Your task to perform on an android device: uninstall "ZOOM Cloud Meetings" Image 0: 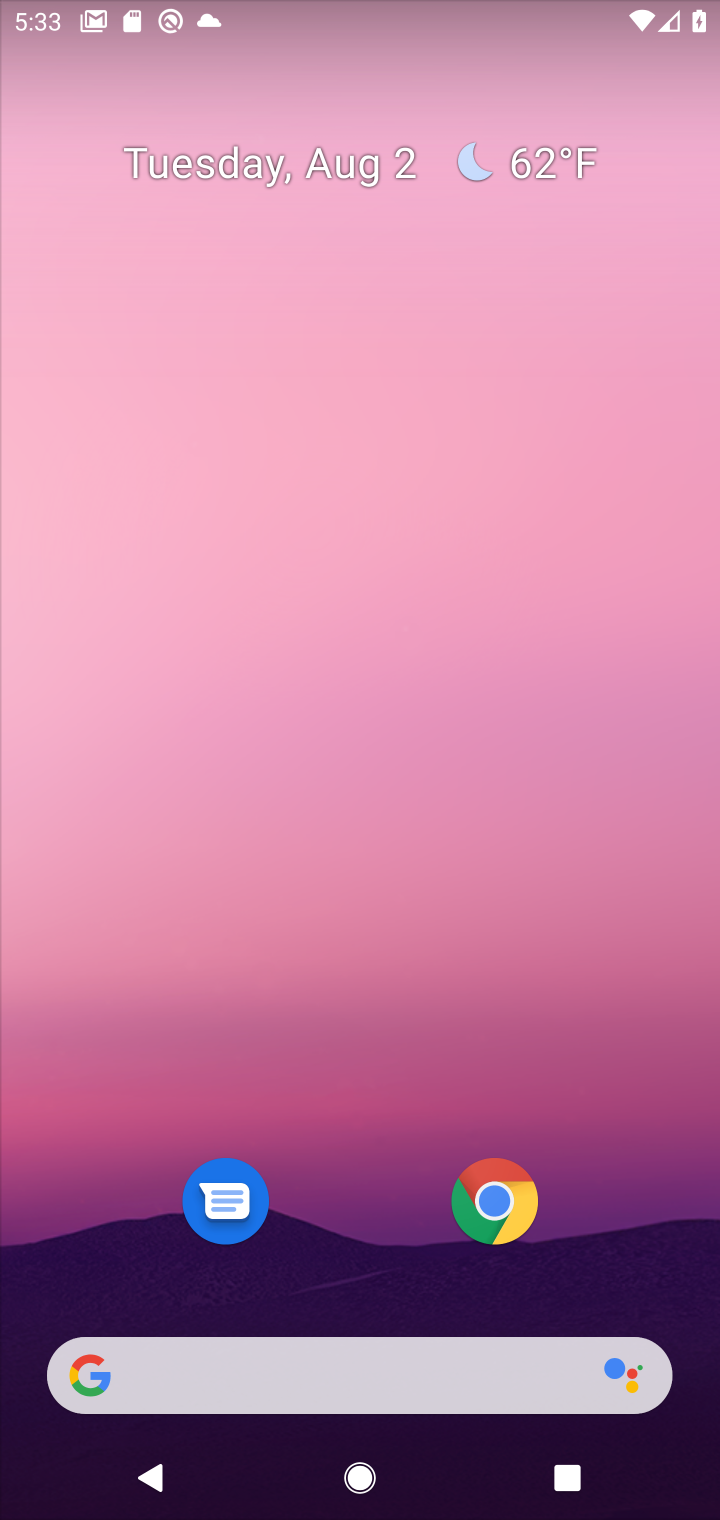
Step 0: drag from (335, 1218) to (320, 54)
Your task to perform on an android device: uninstall "ZOOM Cloud Meetings" Image 1: 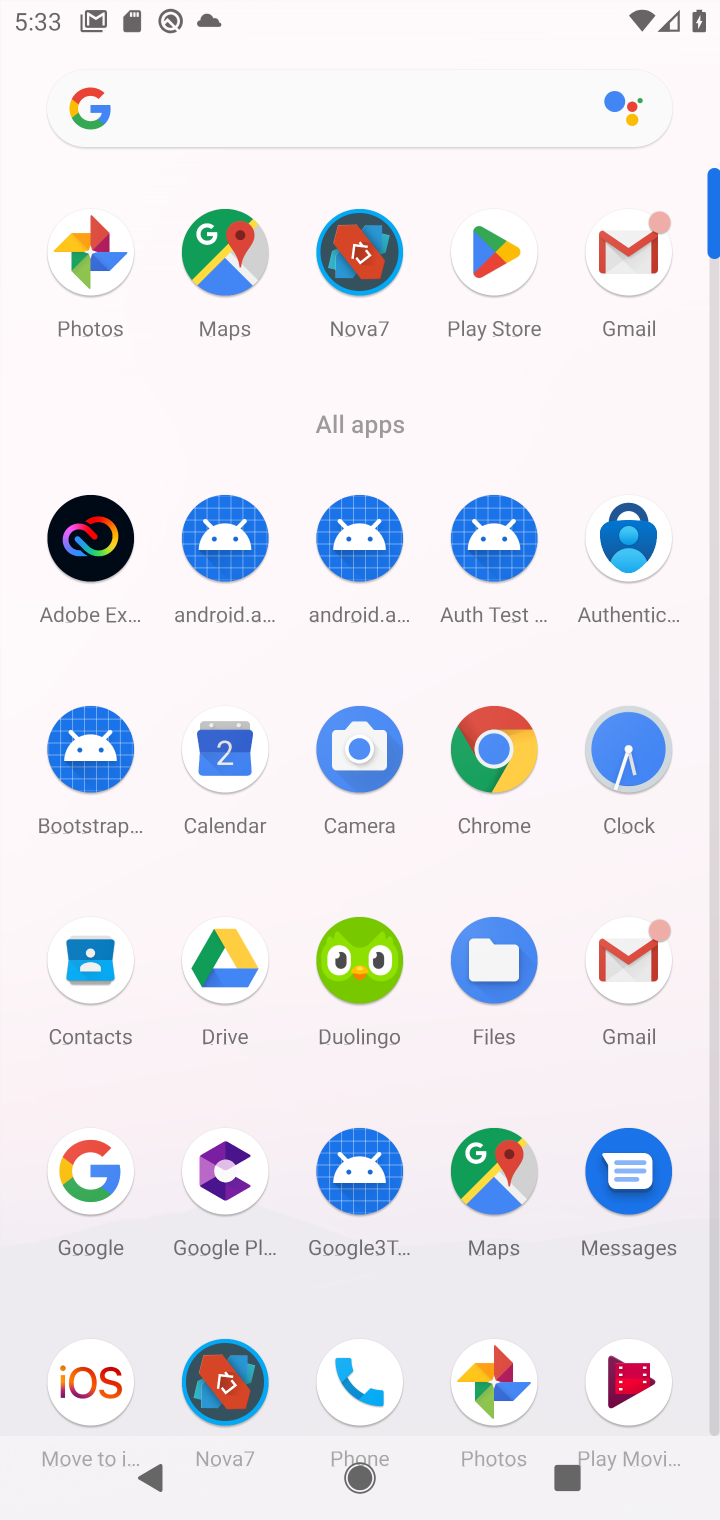
Step 1: click (504, 273)
Your task to perform on an android device: uninstall "ZOOM Cloud Meetings" Image 2: 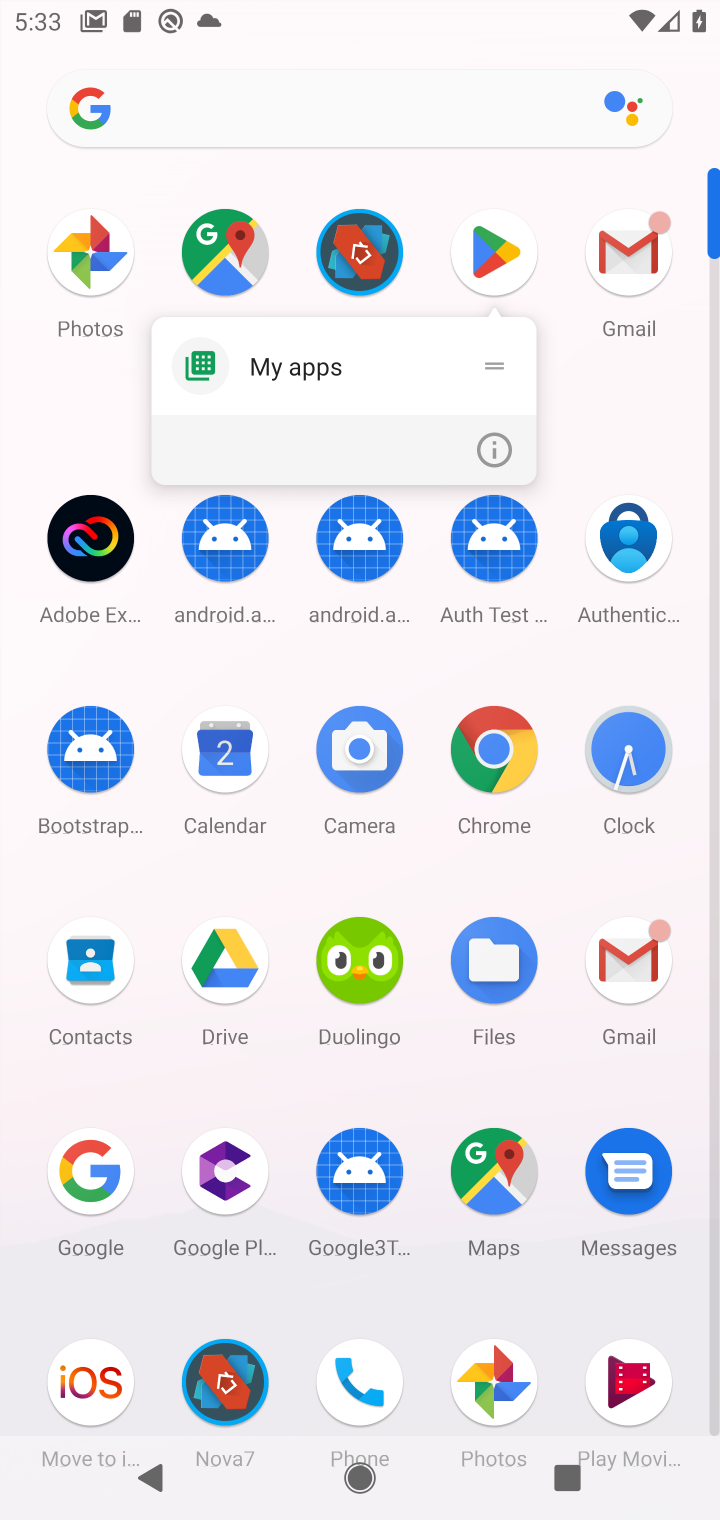
Step 2: click (481, 430)
Your task to perform on an android device: uninstall "ZOOM Cloud Meetings" Image 3: 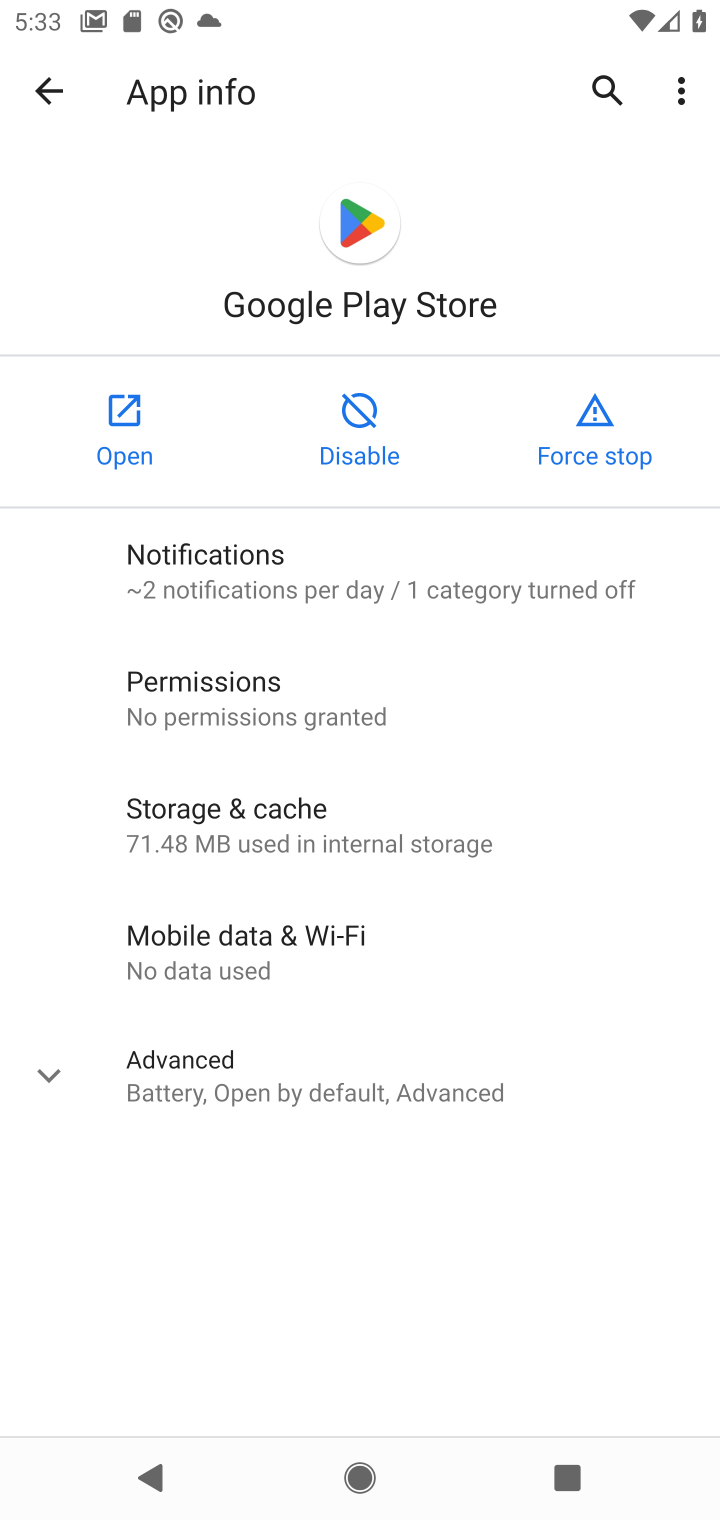
Step 3: click (94, 398)
Your task to perform on an android device: uninstall "ZOOM Cloud Meetings" Image 4: 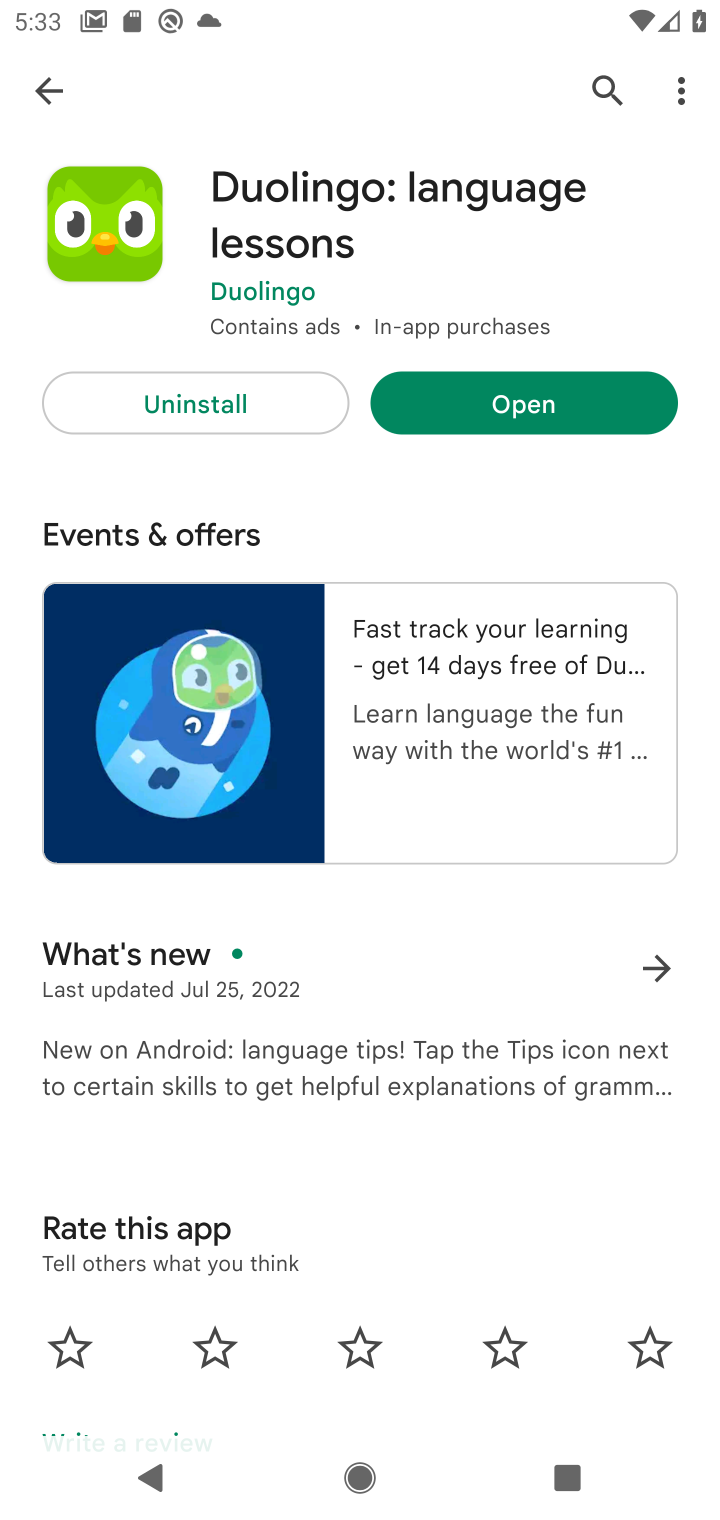
Step 4: click (227, 399)
Your task to perform on an android device: uninstall "ZOOM Cloud Meetings" Image 5: 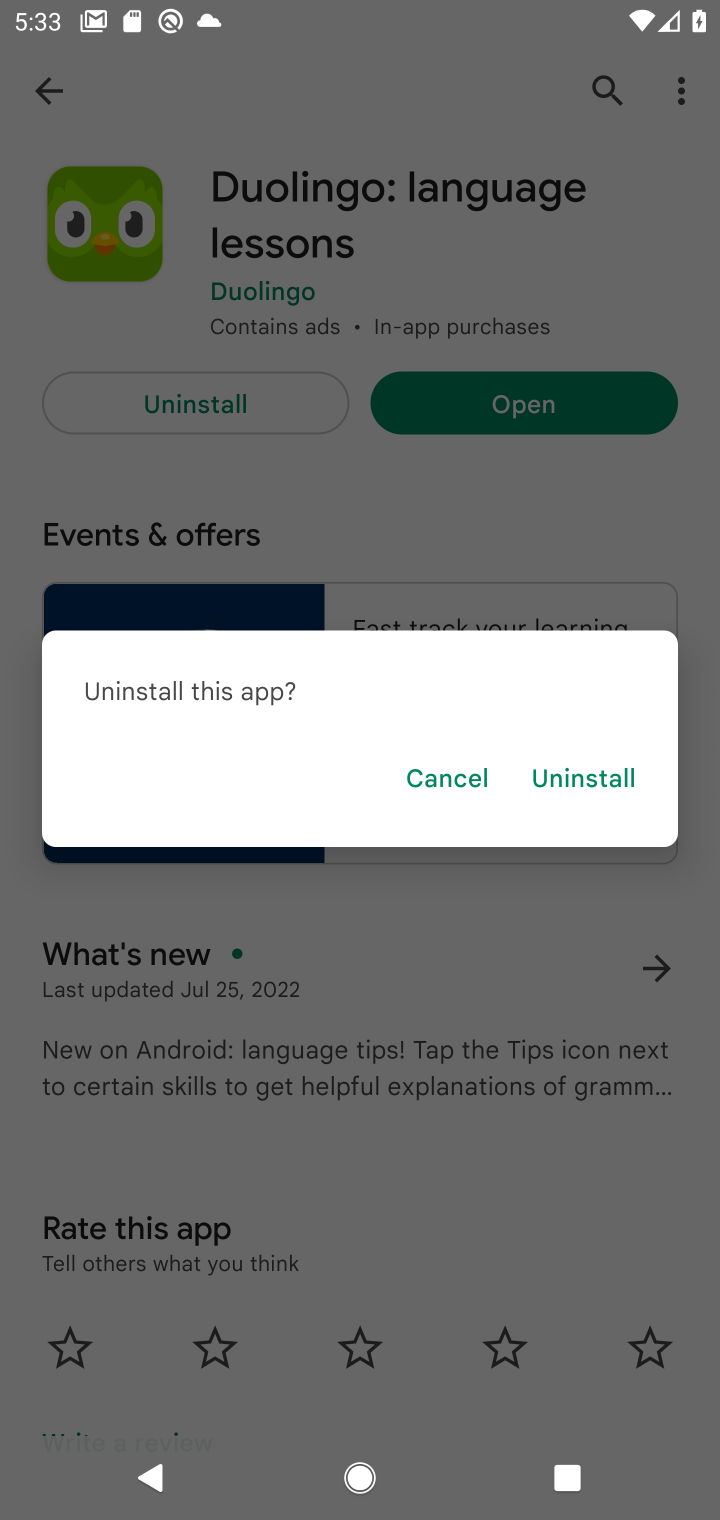
Step 5: click (432, 776)
Your task to perform on an android device: uninstall "ZOOM Cloud Meetings" Image 6: 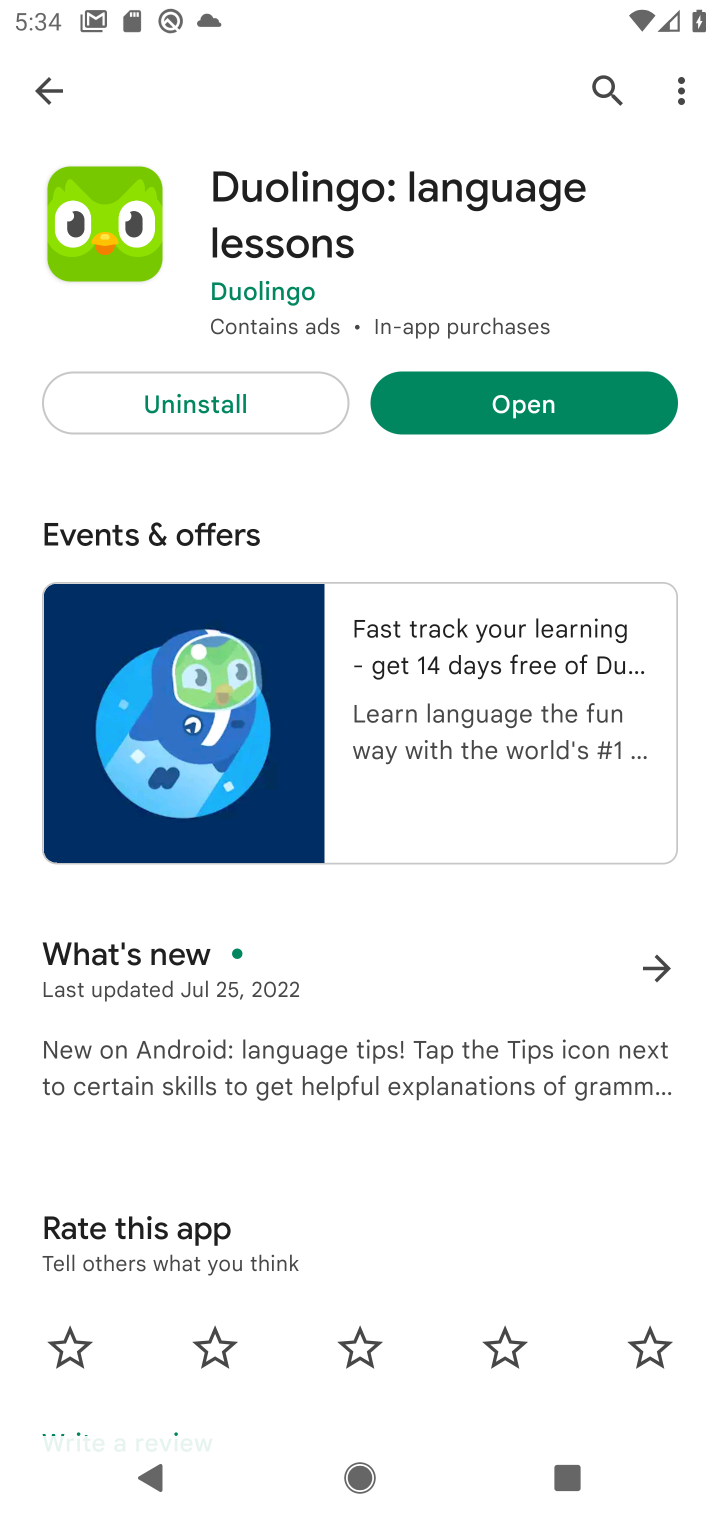
Step 6: click (593, 85)
Your task to perform on an android device: uninstall "ZOOM Cloud Meetings" Image 7: 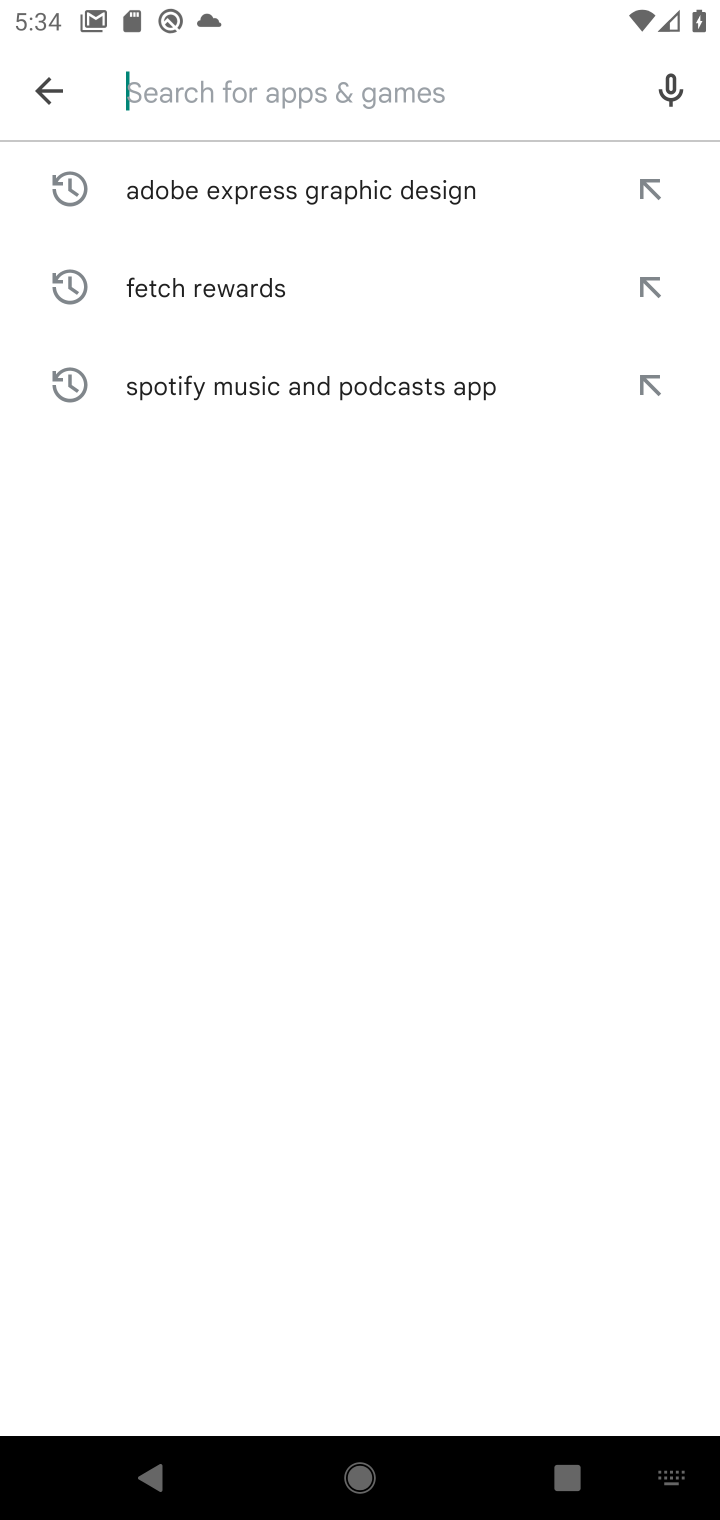
Step 7: click (199, 89)
Your task to perform on an android device: uninstall "ZOOM Cloud Meetings" Image 8: 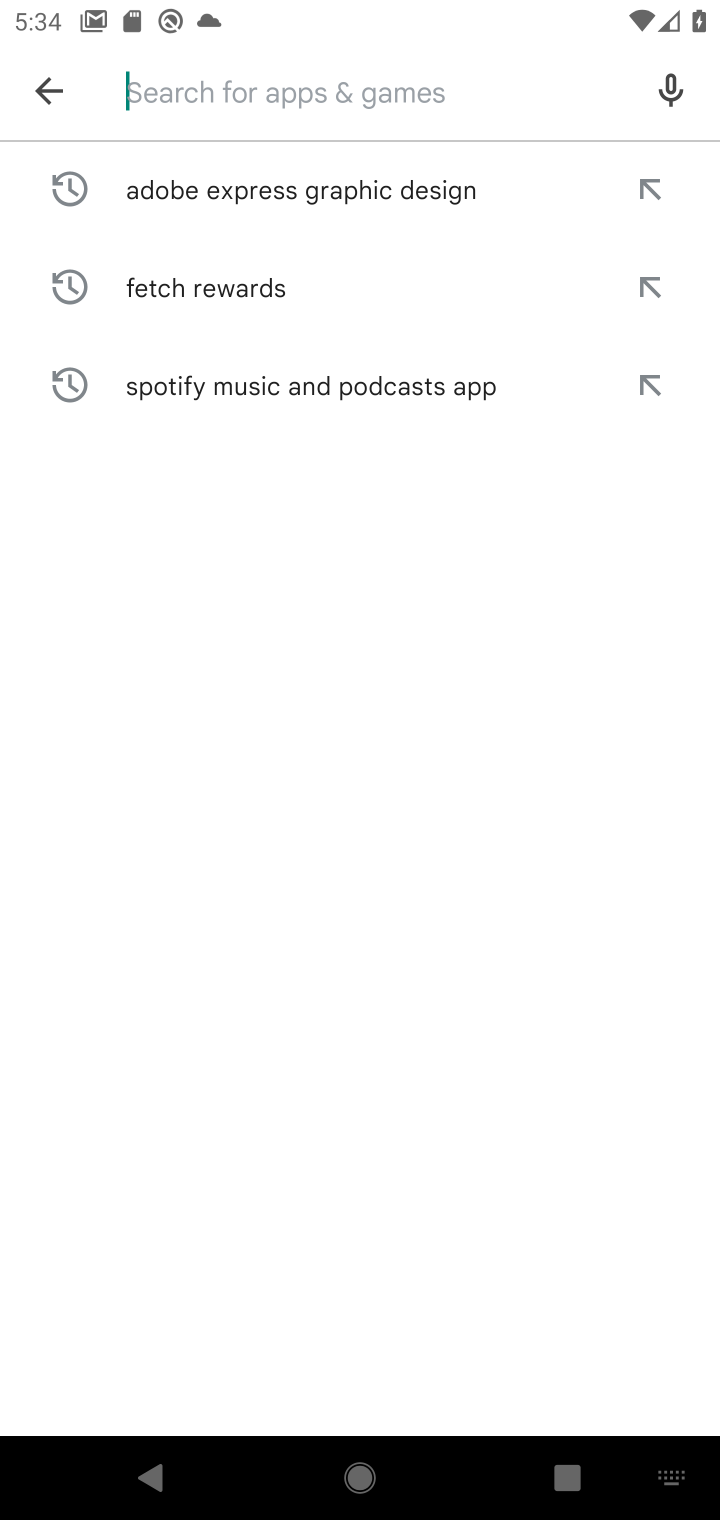
Step 8: type "ZOOM Cloud Meetings"
Your task to perform on an android device: uninstall "ZOOM Cloud Meetings" Image 9: 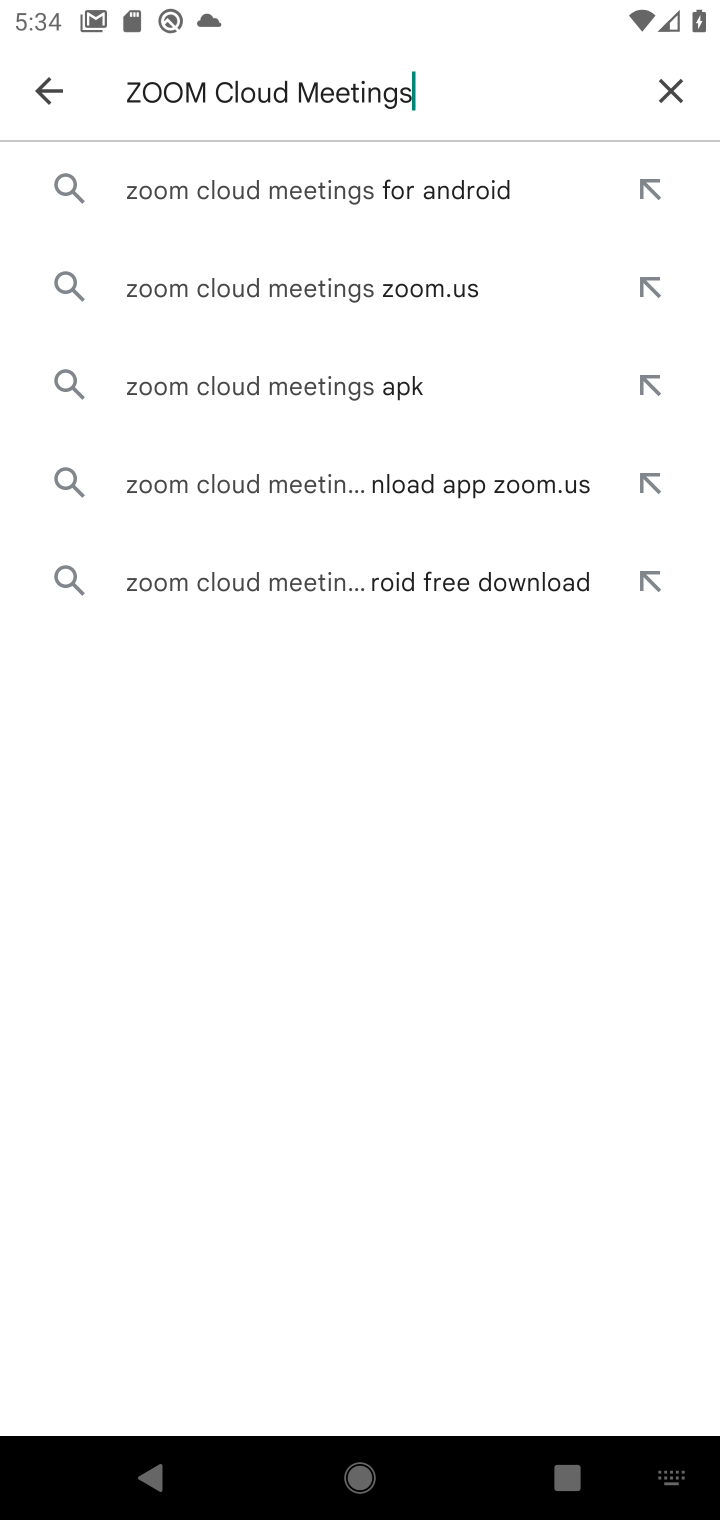
Step 9: type ""
Your task to perform on an android device: uninstall "ZOOM Cloud Meetings" Image 10: 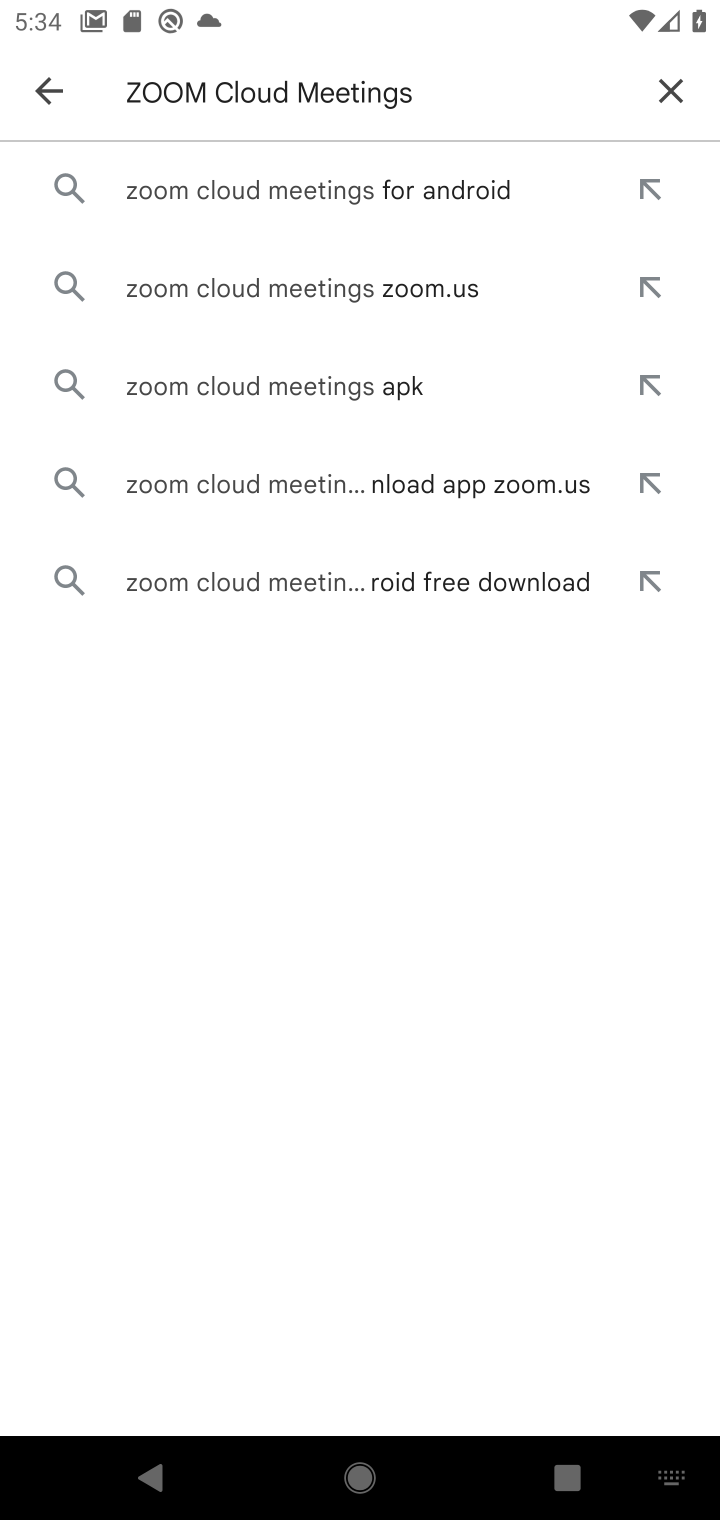
Step 10: click (220, 189)
Your task to perform on an android device: uninstall "ZOOM Cloud Meetings" Image 11: 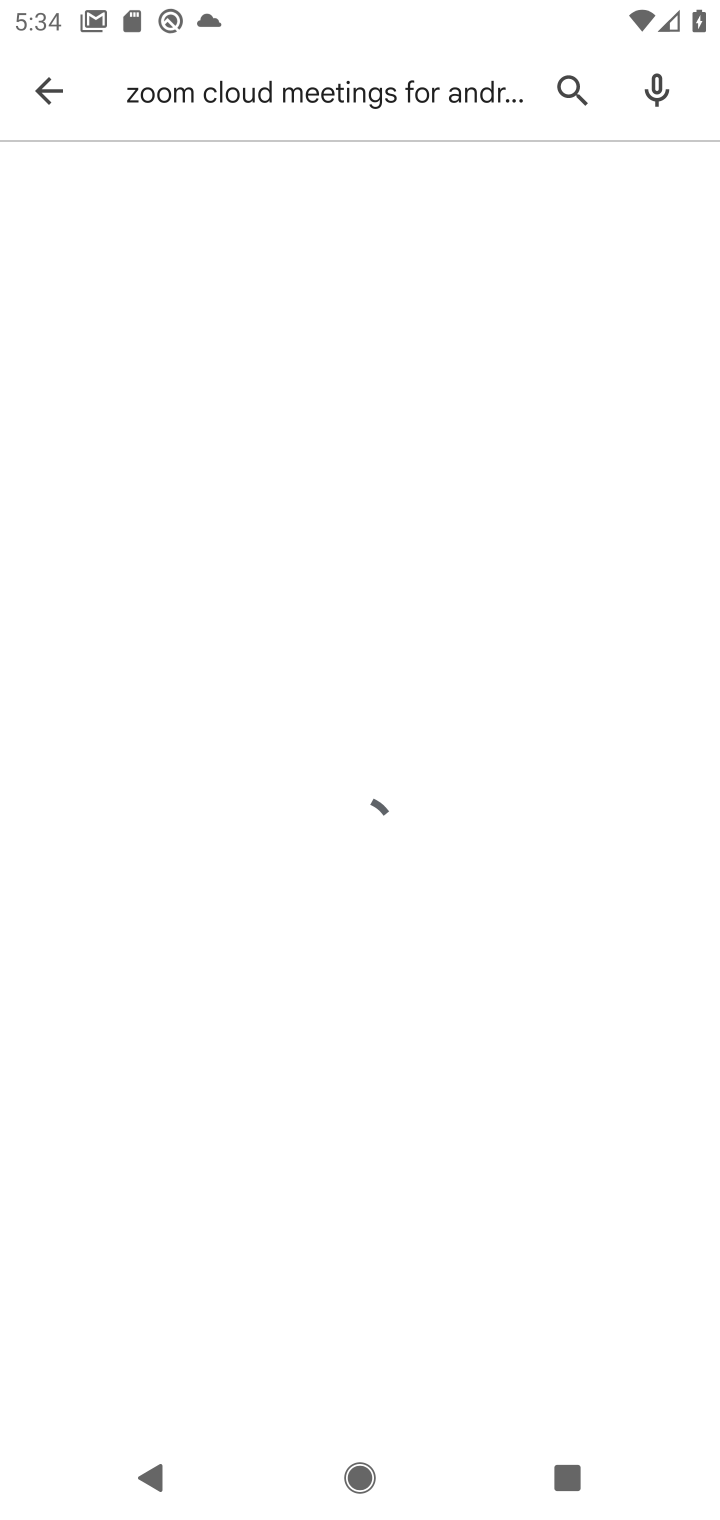
Step 11: drag from (311, 631) to (372, 1206)
Your task to perform on an android device: uninstall "ZOOM Cloud Meetings" Image 12: 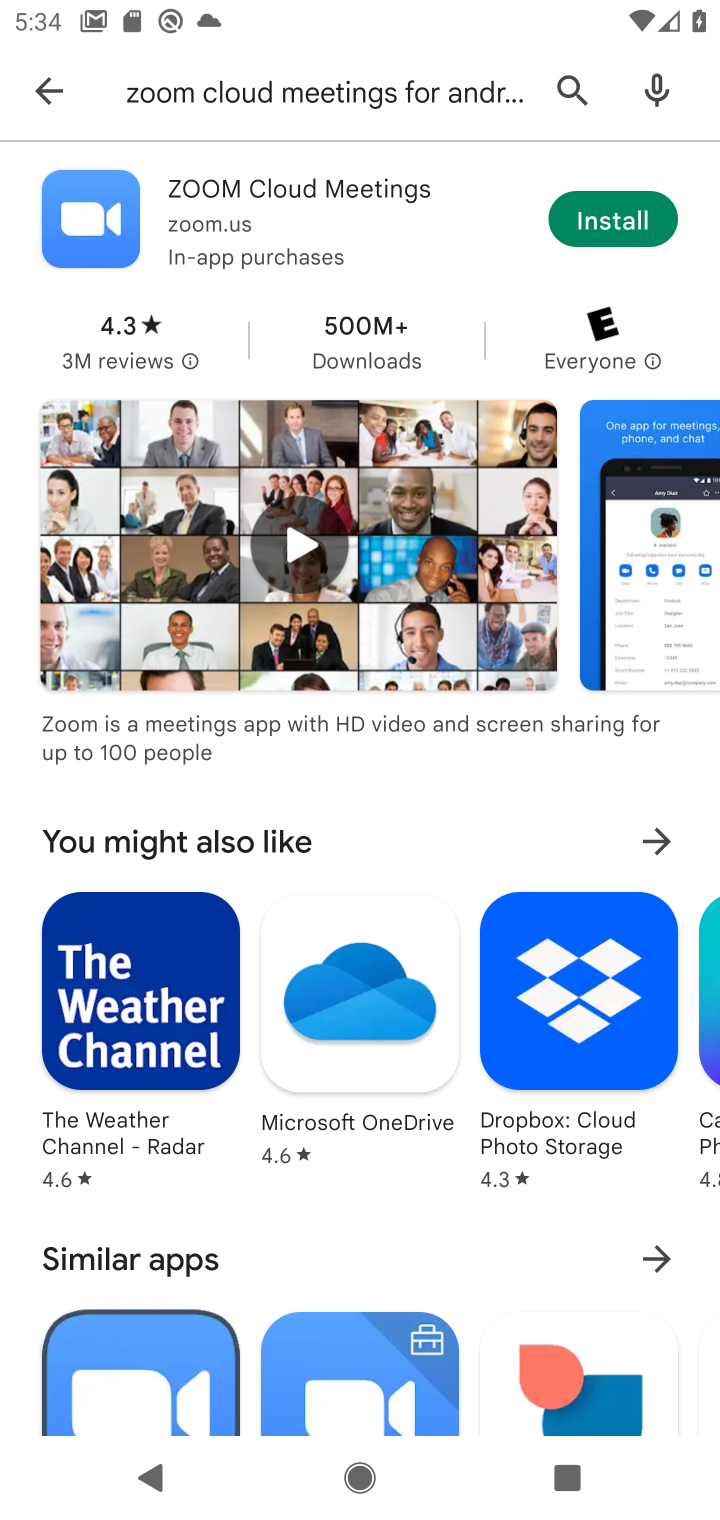
Step 12: click (224, 191)
Your task to perform on an android device: uninstall "ZOOM Cloud Meetings" Image 13: 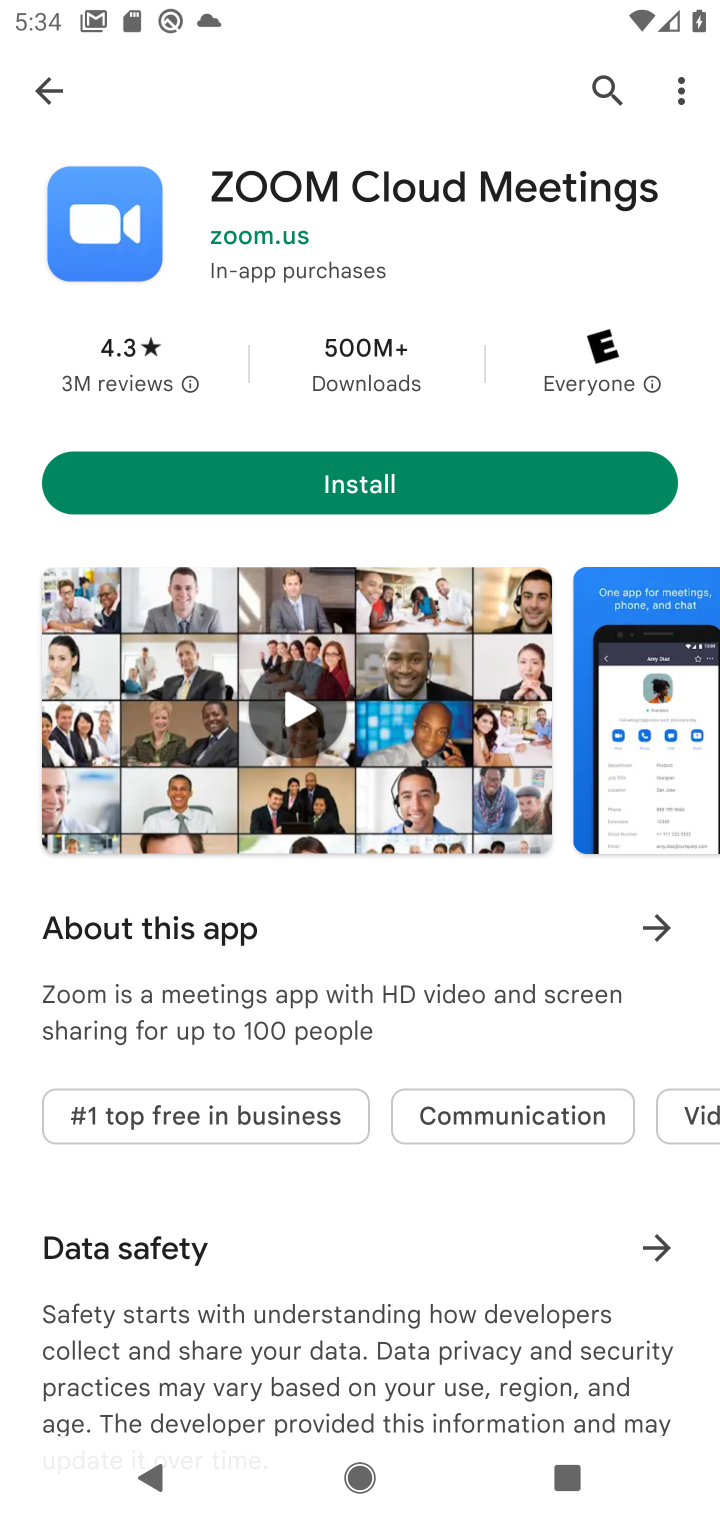
Step 13: task complete